Your task to perform on an android device: Open Amazon Image 0: 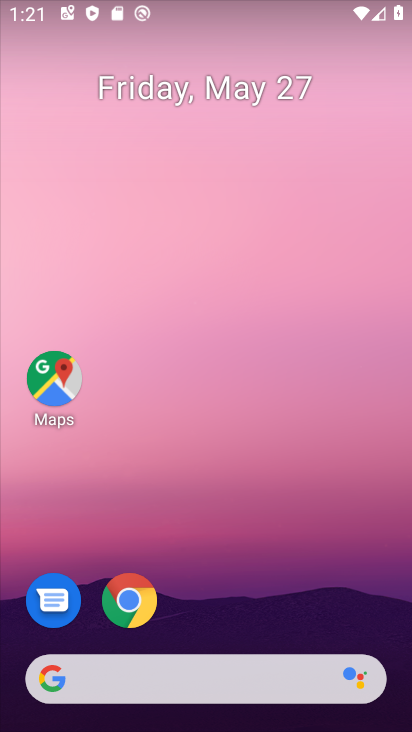
Step 0: click (128, 602)
Your task to perform on an android device: Open Amazon Image 1: 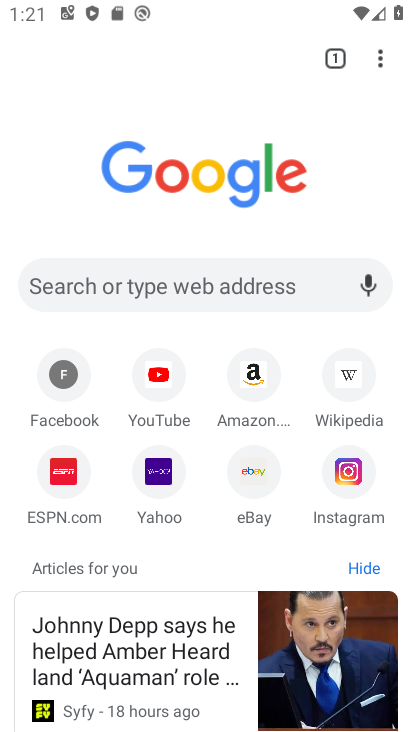
Step 1: click (256, 371)
Your task to perform on an android device: Open Amazon Image 2: 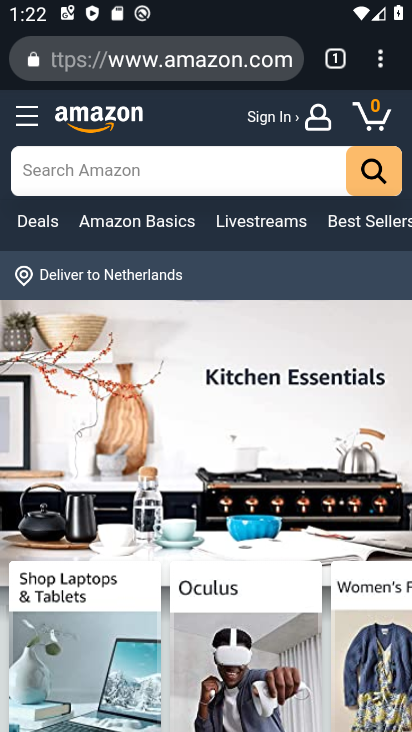
Step 2: task complete